Your task to perform on an android device: Go to privacy settings Image 0: 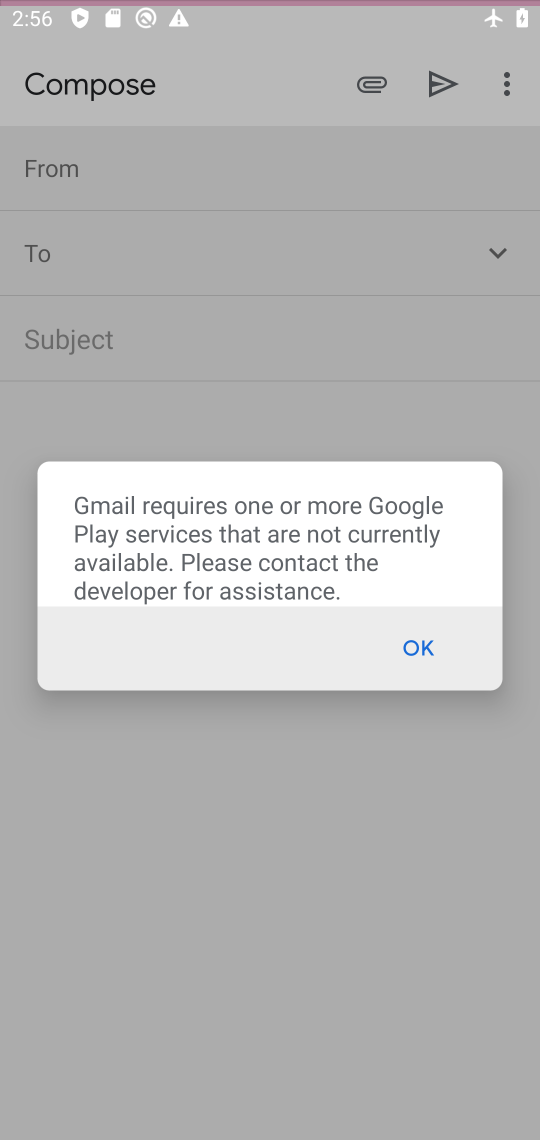
Step 0: drag from (53, 5) to (104, 0)
Your task to perform on an android device: Go to privacy settings Image 1: 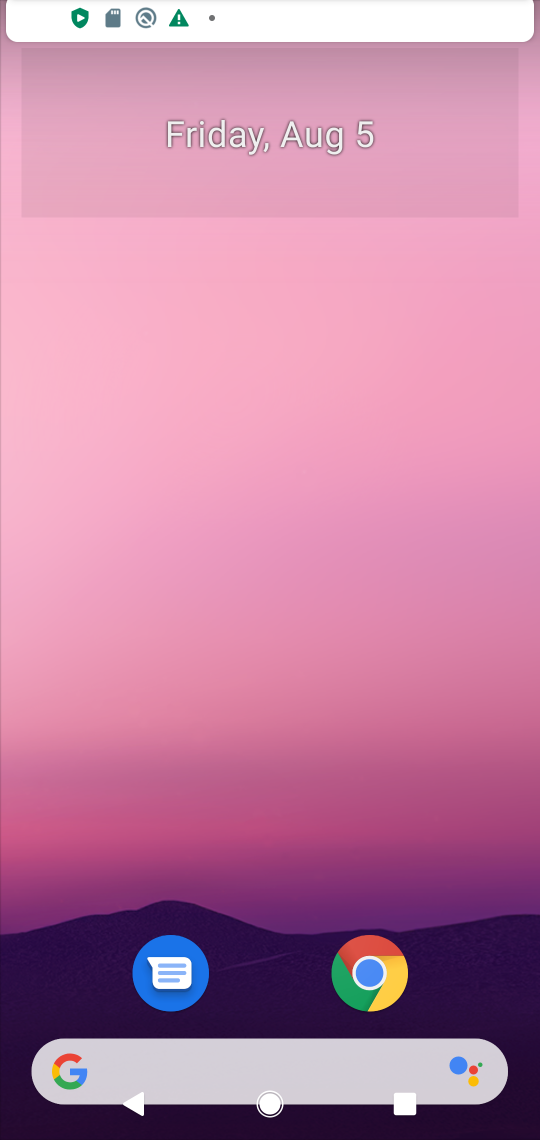
Step 1: click (212, 660)
Your task to perform on an android device: Go to privacy settings Image 2: 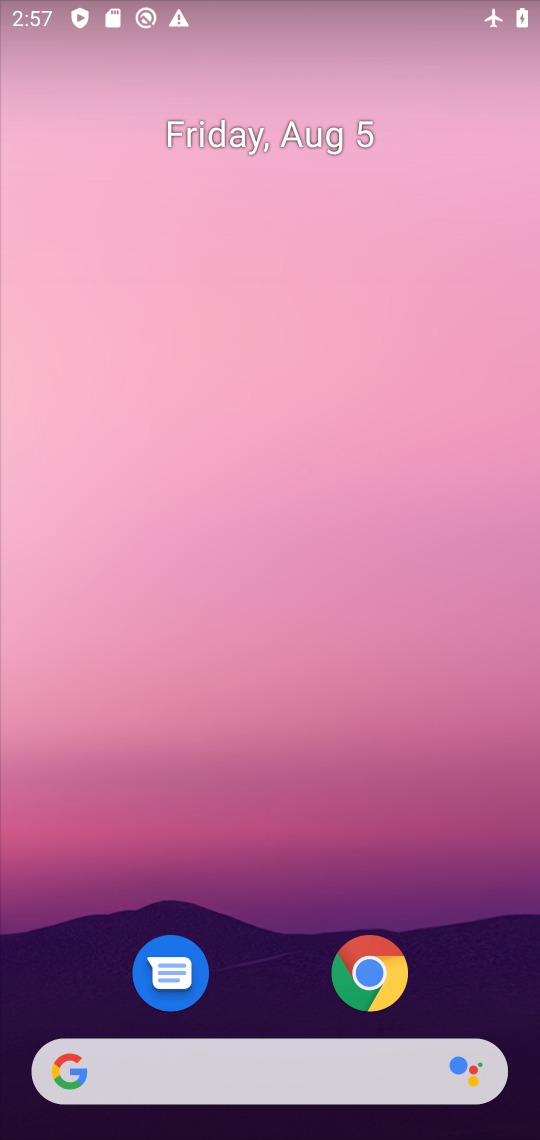
Step 2: drag from (291, 1019) to (222, 84)
Your task to perform on an android device: Go to privacy settings Image 3: 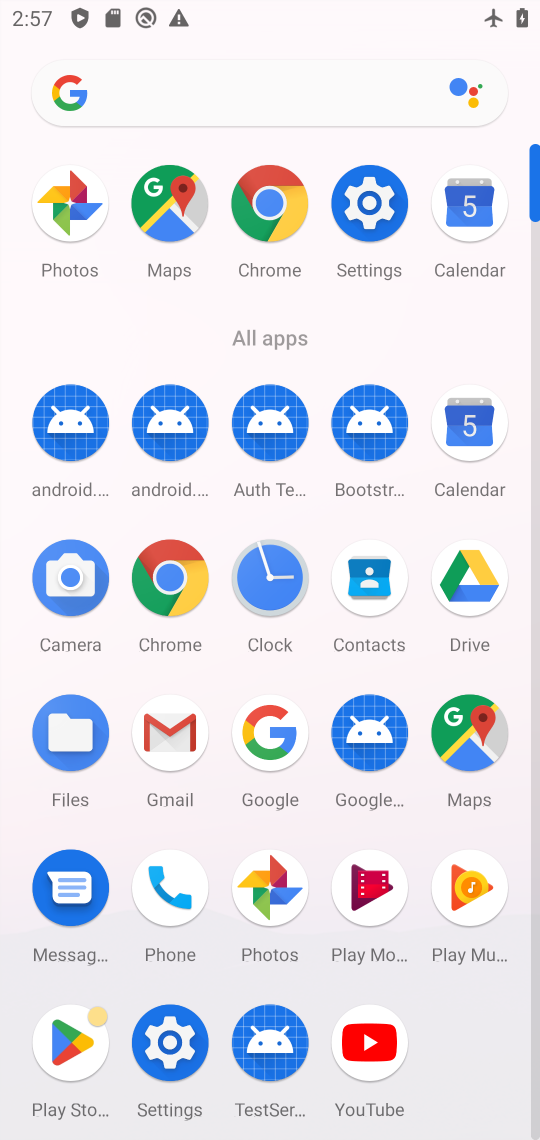
Step 3: click (180, 1033)
Your task to perform on an android device: Go to privacy settings Image 4: 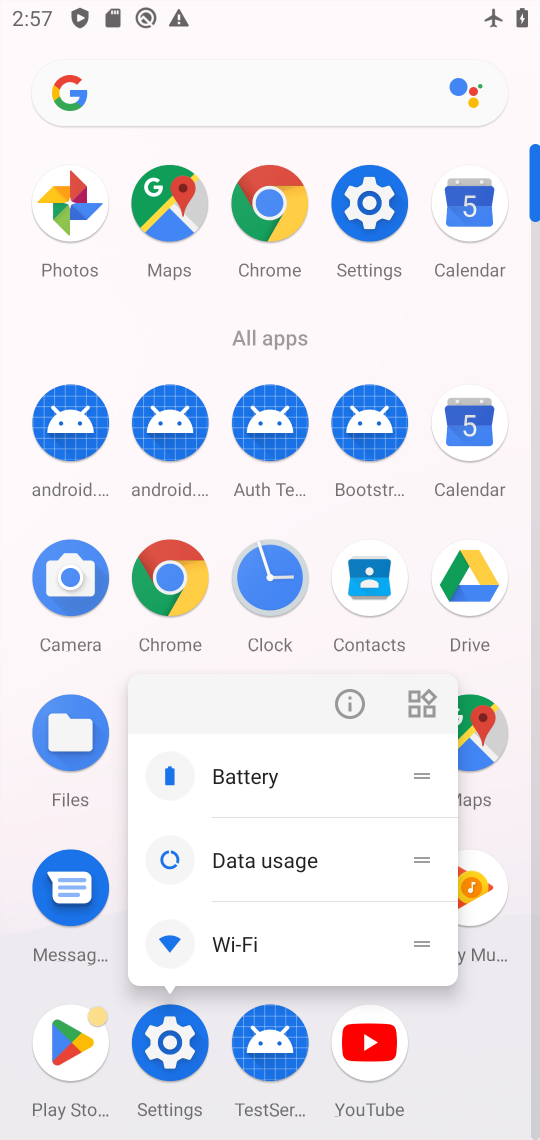
Step 4: click (180, 1033)
Your task to perform on an android device: Go to privacy settings Image 5: 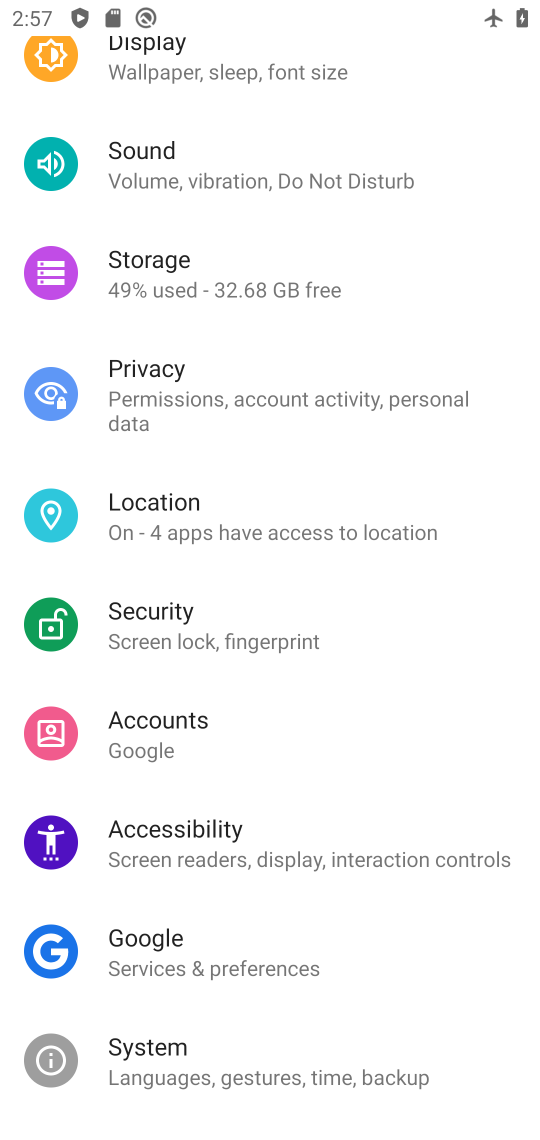
Step 5: click (127, 417)
Your task to perform on an android device: Go to privacy settings Image 6: 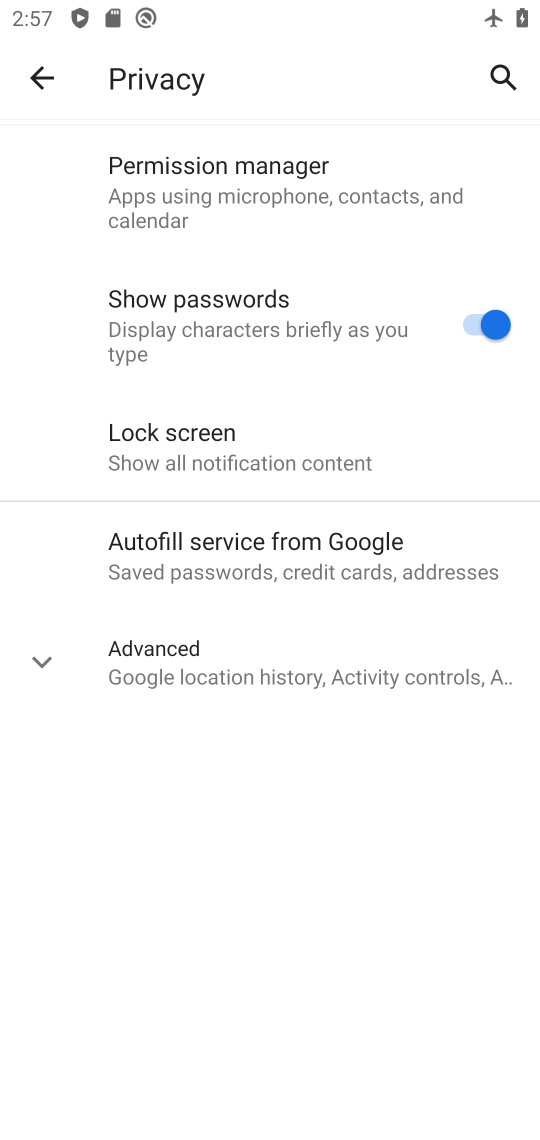
Step 6: click (199, 638)
Your task to perform on an android device: Go to privacy settings Image 7: 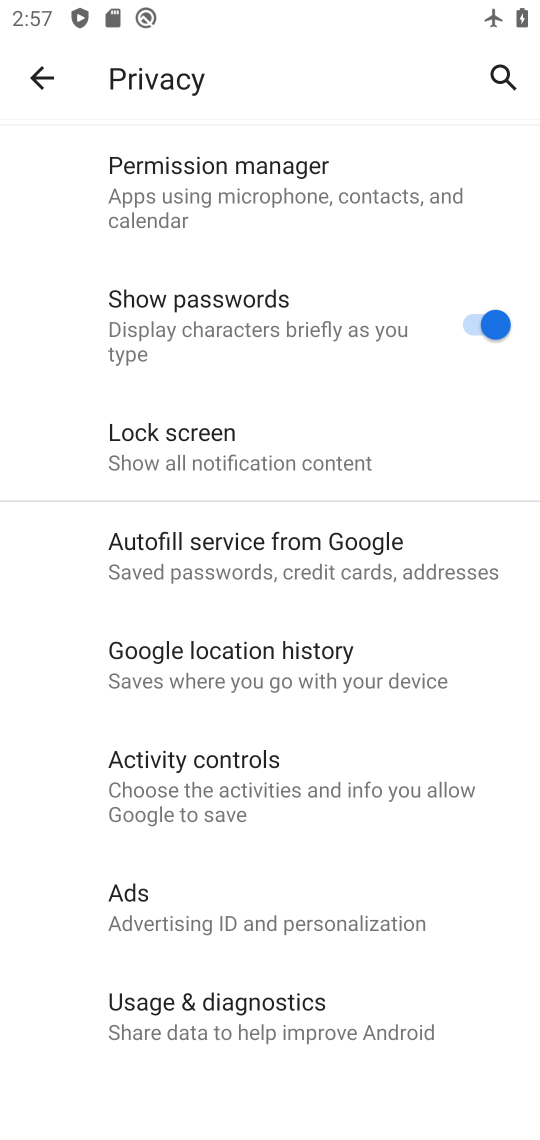
Step 7: task complete